Your task to perform on an android device: open a new tab in the chrome app Image 0: 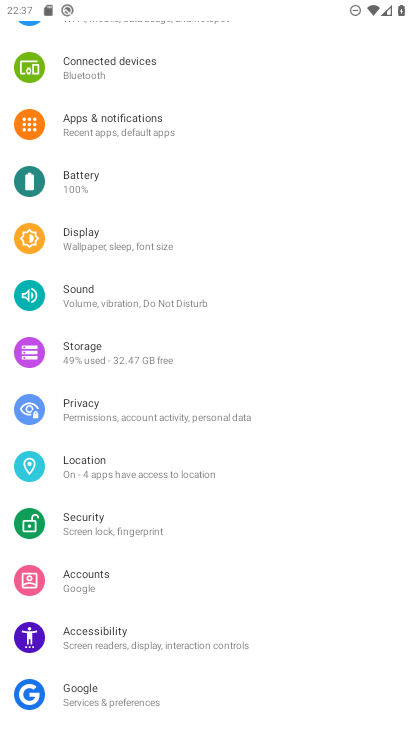
Step 0: press home button
Your task to perform on an android device: open a new tab in the chrome app Image 1: 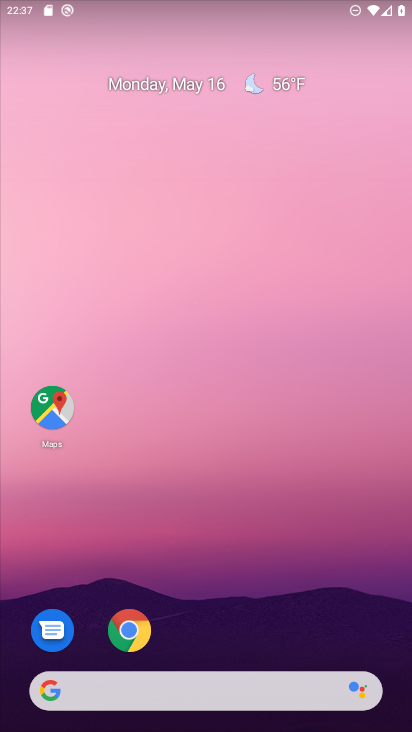
Step 1: click (122, 637)
Your task to perform on an android device: open a new tab in the chrome app Image 2: 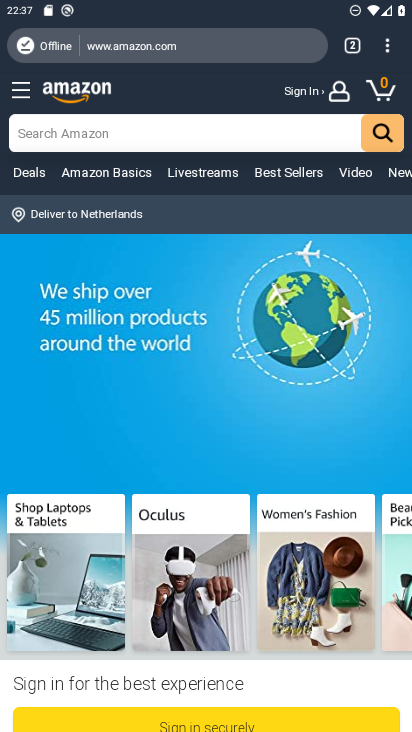
Step 2: click (389, 47)
Your task to perform on an android device: open a new tab in the chrome app Image 3: 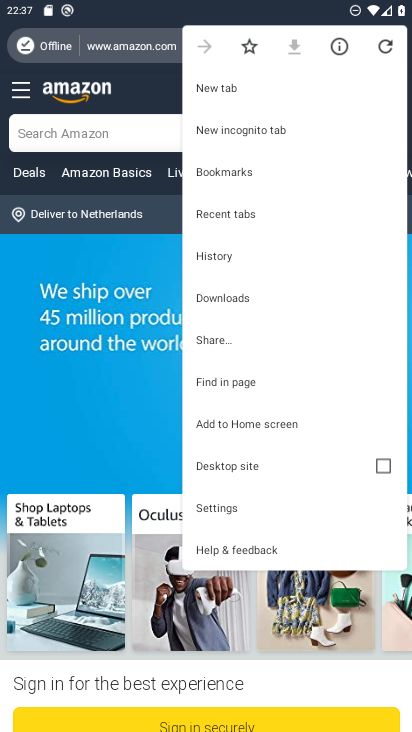
Step 3: click (212, 88)
Your task to perform on an android device: open a new tab in the chrome app Image 4: 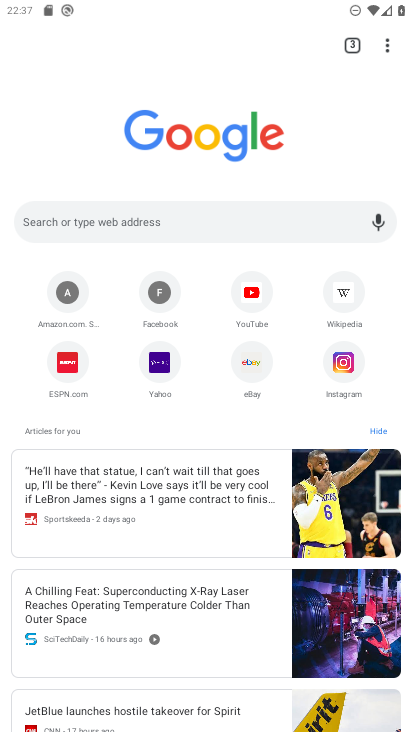
Step 4: task complete